Your task to perform on an android device: Open my contact list Image 0: 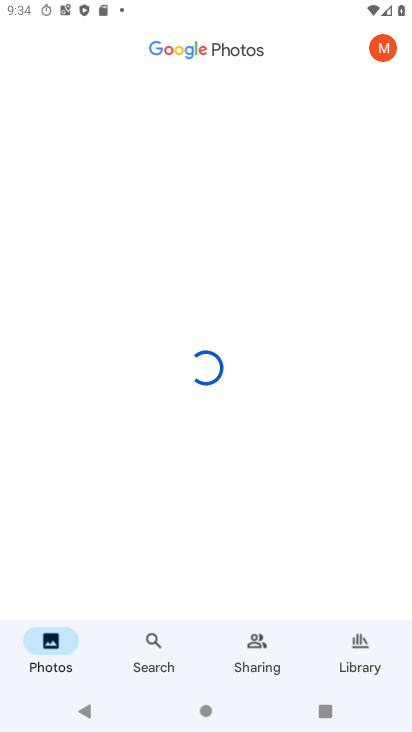
Step 0: press home button
Your task to perform on an android device: Open my contact list Image 1: 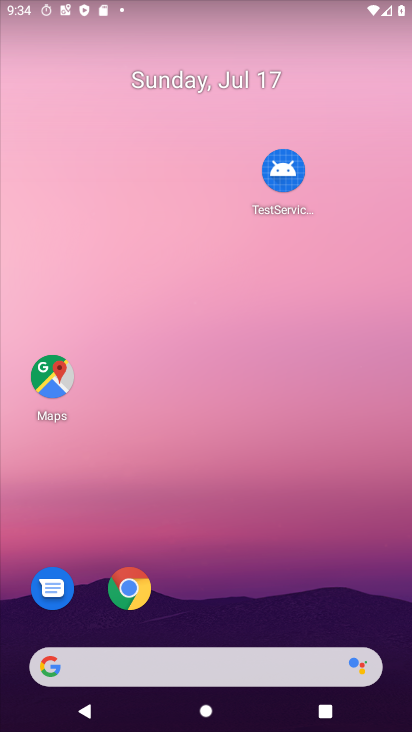
Step 1: drag from (259, 561) to (297, 230)
Your task to perform on an android device: Open my contact list Image 2: 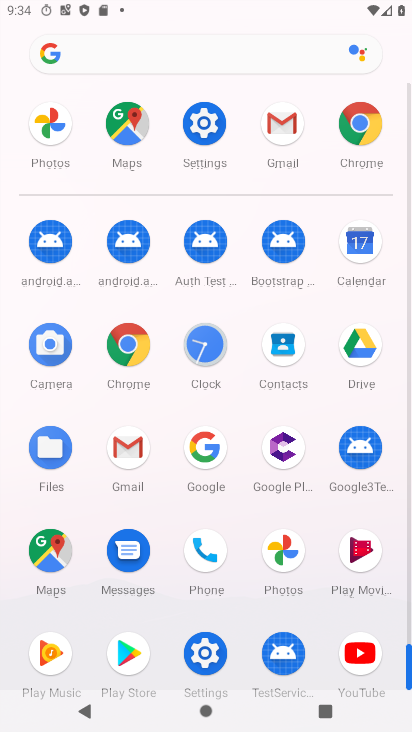
Step 2: click (283, 359)
Your task to perform on an android device: Open my contact list Image 3: 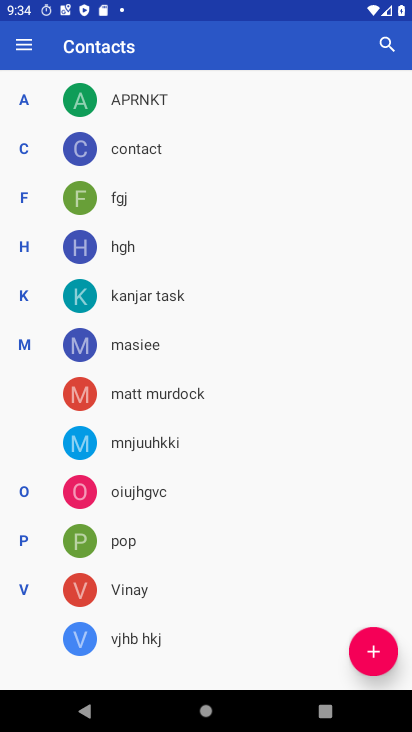
Step 3: task complete